Your task to perform on an android device: toggle notifications settings in the gmail app Image 0: 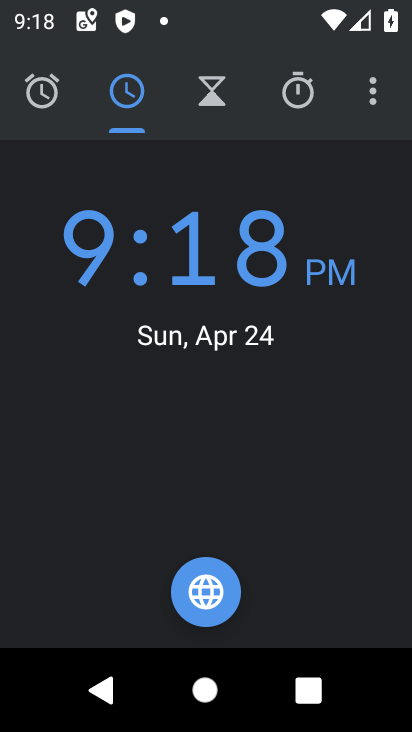
Step 0: press home button
Your task to perform on an android device: toggle notifications settings in the gmail app Image 1: 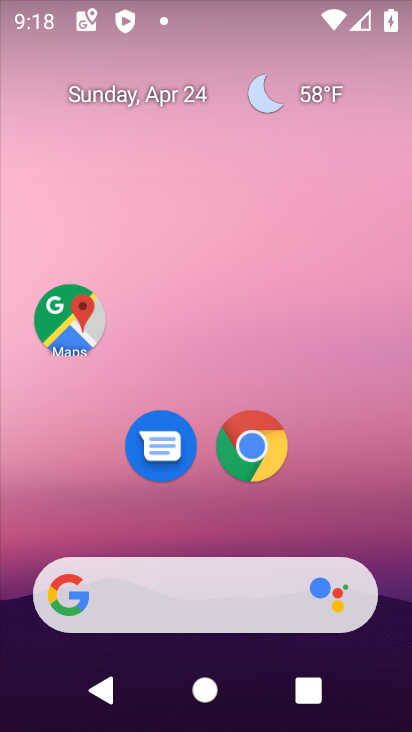
Step 1: drag from (212, 585) to (333, 86)
Your task to perform on an android device: toggle notifications settings in the gmail app Image 2: 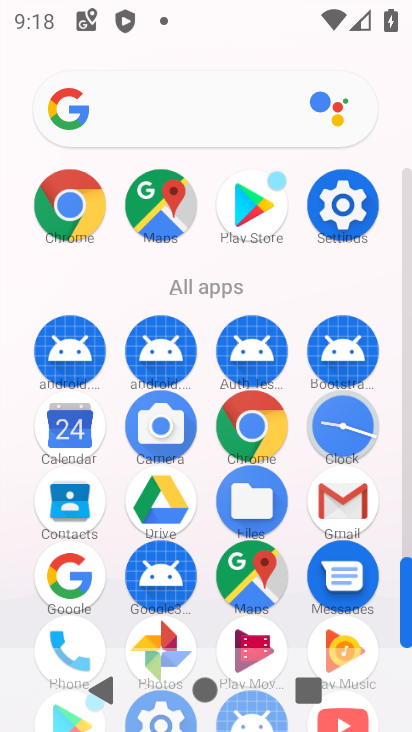
Step 2: click (358, 507)
Your task to perform on an android device: toggle notifications settings in the gmail app Image 3: 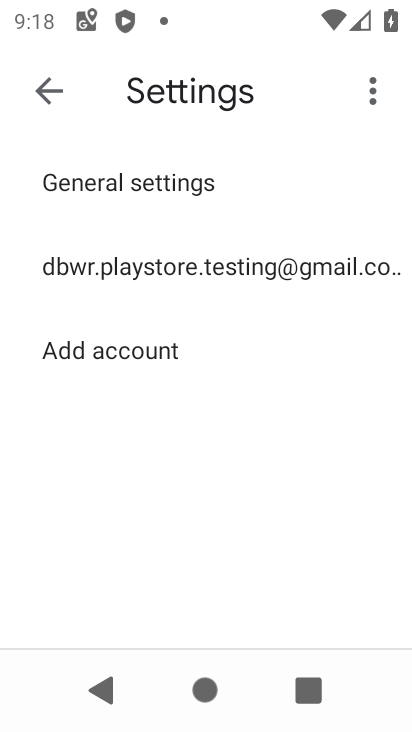
Step 3: click (174, 260)
Your task to perform on an android device: toggle notifications settings in the gmail app Image 4: 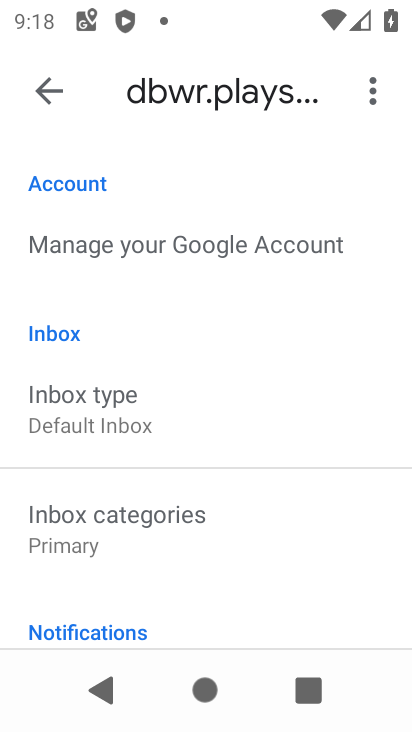
Step 4: drag from (141, 571) to (294, 152)
Your task to perform on an android device: toggle notifications settings in the gmail app Image 5: 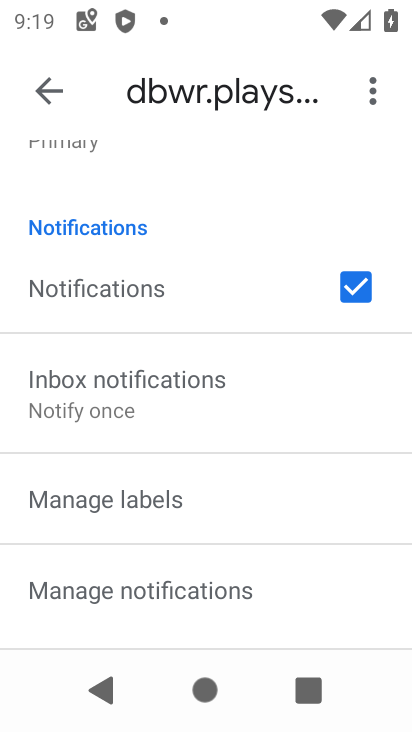
Step 5: click (363, 289)
Your task to perform on an android device: toggle notifications settings in the gmail app Image 6: 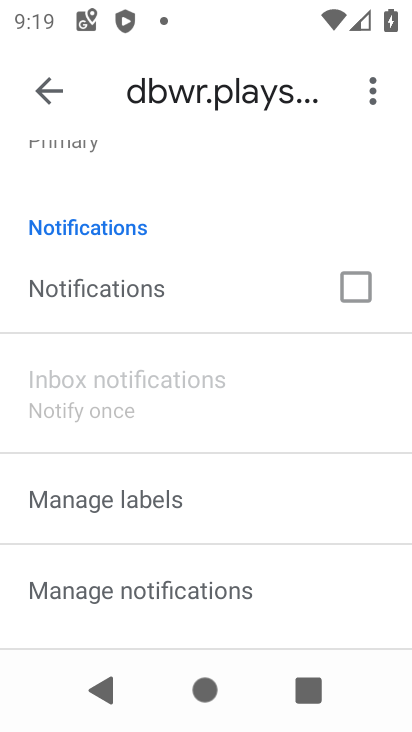
Step 6: task complete